Your task to perform on an android device: Clear all items from cart on amazon. Add "razer blackwidow" to the cart on amazon Image 0: 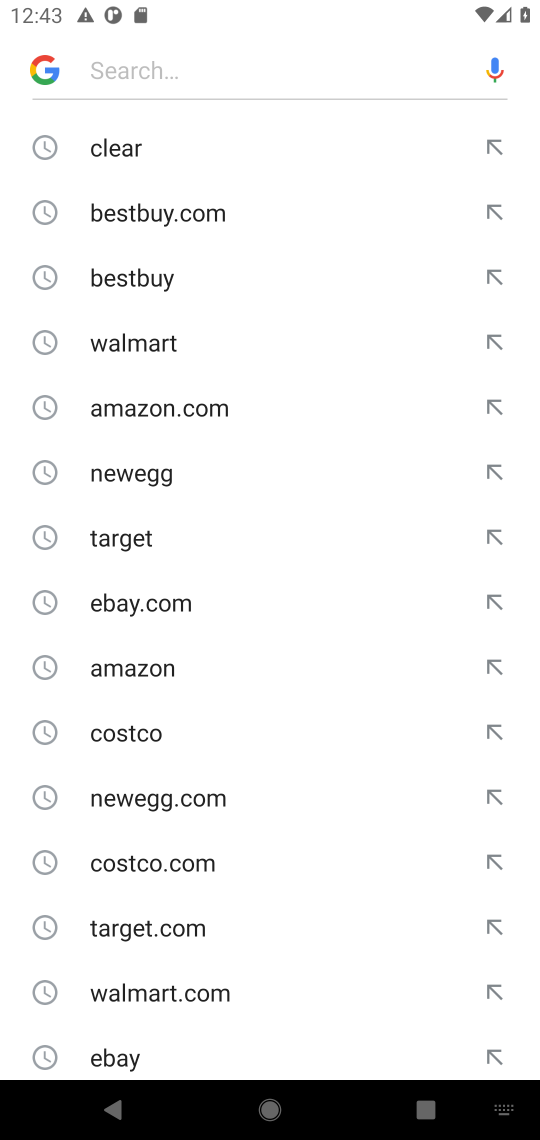
Step 0: press home button
Your task to perform on an android device: Clear all items from cart on amazon. Add "razer blackwidow" to the cart on amazon Image 1: 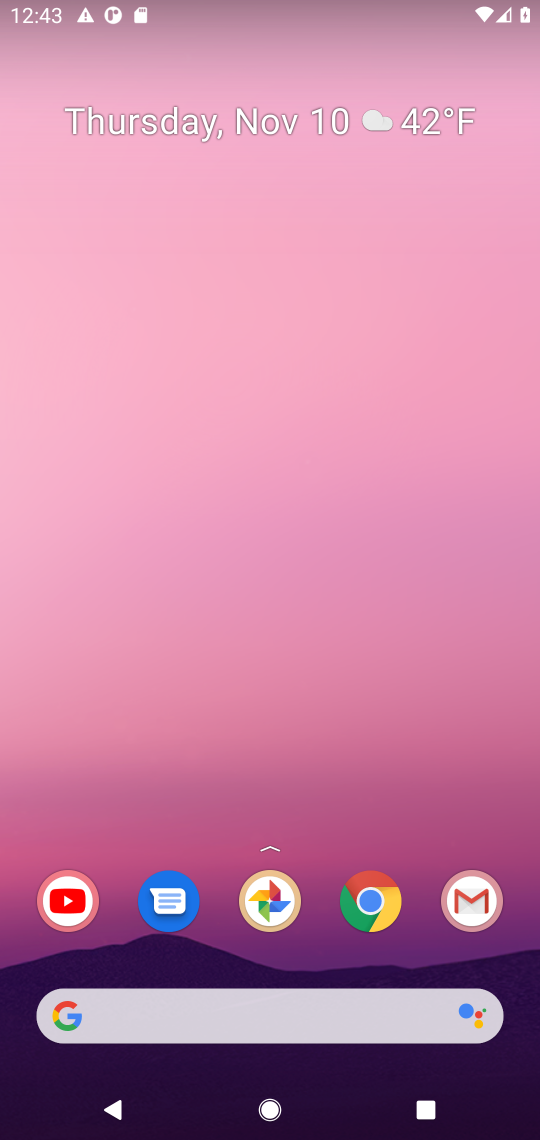
Step 1: drag from (310, 844) to (170, 191)
Your task to perform on an android device: Clear all items from cart on amazon. Add "razer blackwidow" to the cart on amazon Image 2: 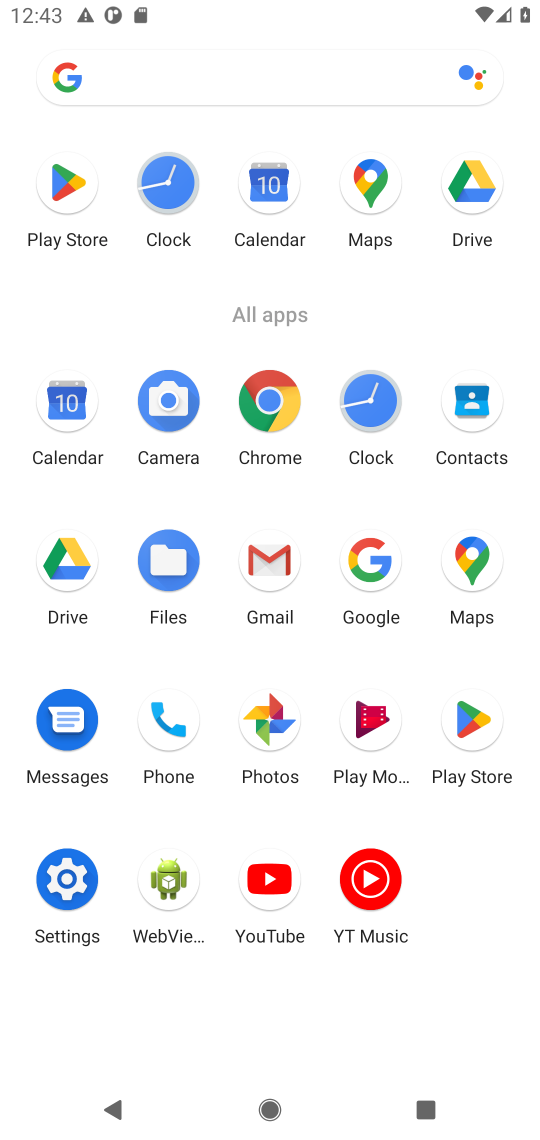
Step 2: click (279, 413)
Your task to perform on an android device: Clear all items from cart on amazon. Add "razer blackwidow" to the cart on amazon Image 3: 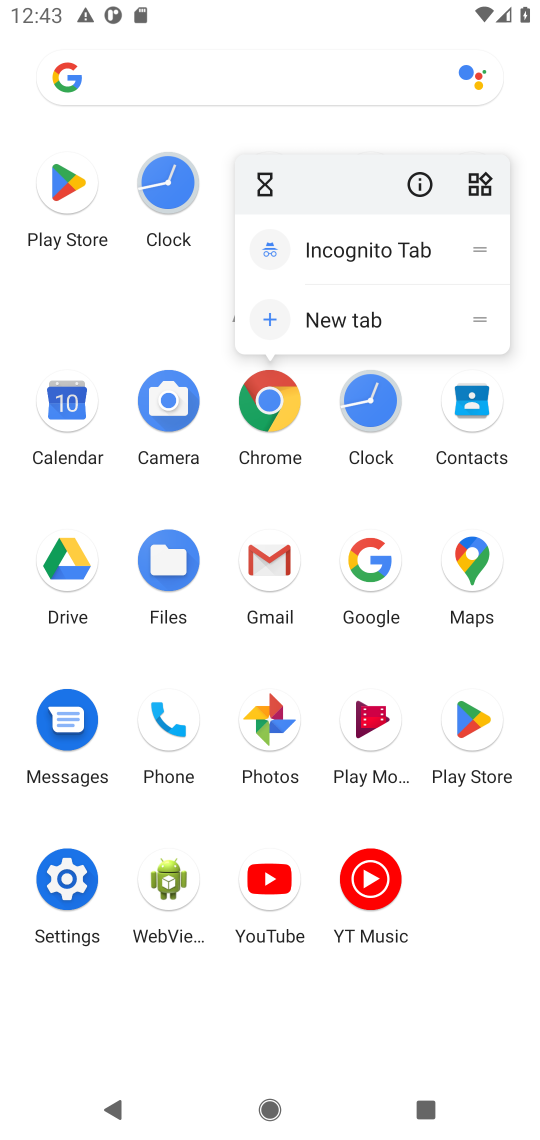
Step 3: click (279, 411)
Your task to perform on an android device: Clear all items from cart on amazon. Add "razer blackwidow" to the cart on amazon Image 4: 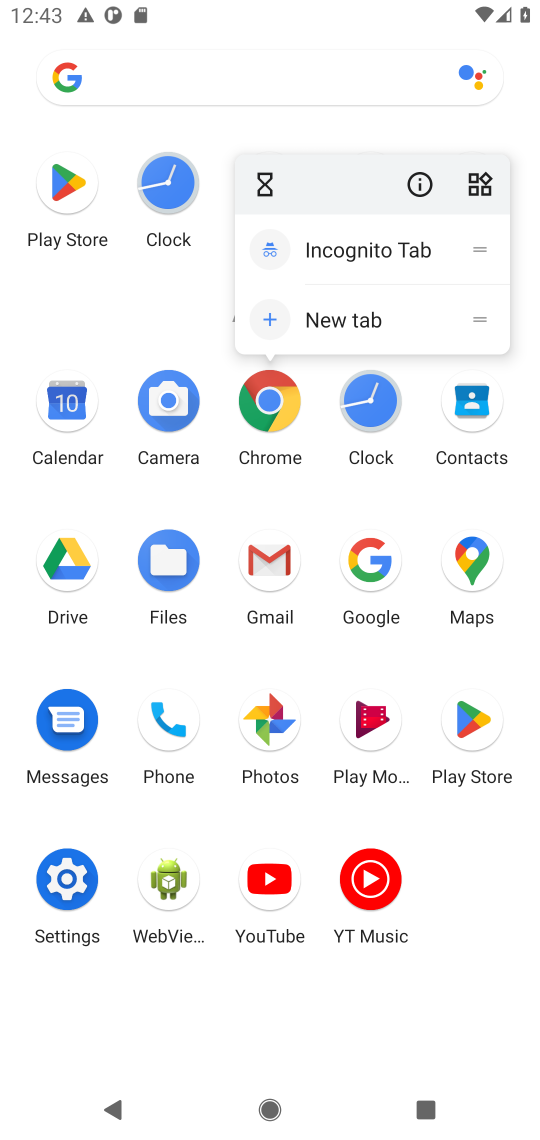
Step 4: click (279, 410)
Your task to perform on an android device: Clear all items from cart on amazon. Add "razer blackwidow" to the cart on amazon Image 5: 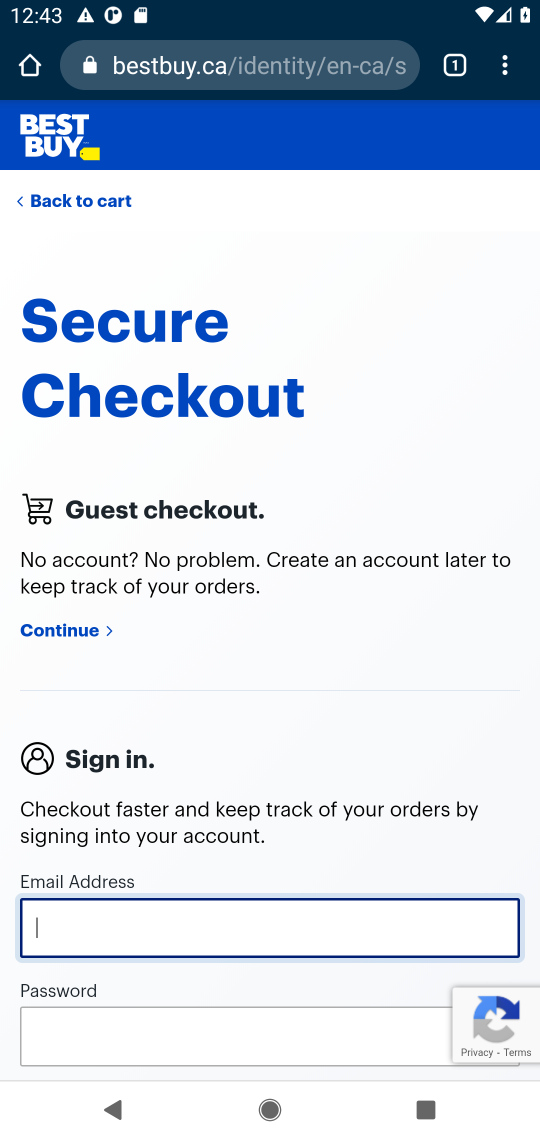
Step 5: click (261, 65)
Your task to perform on an android device: Clear all items from cart on amazon. Add "razer blackwidow" to the cart on amazon Image 6: 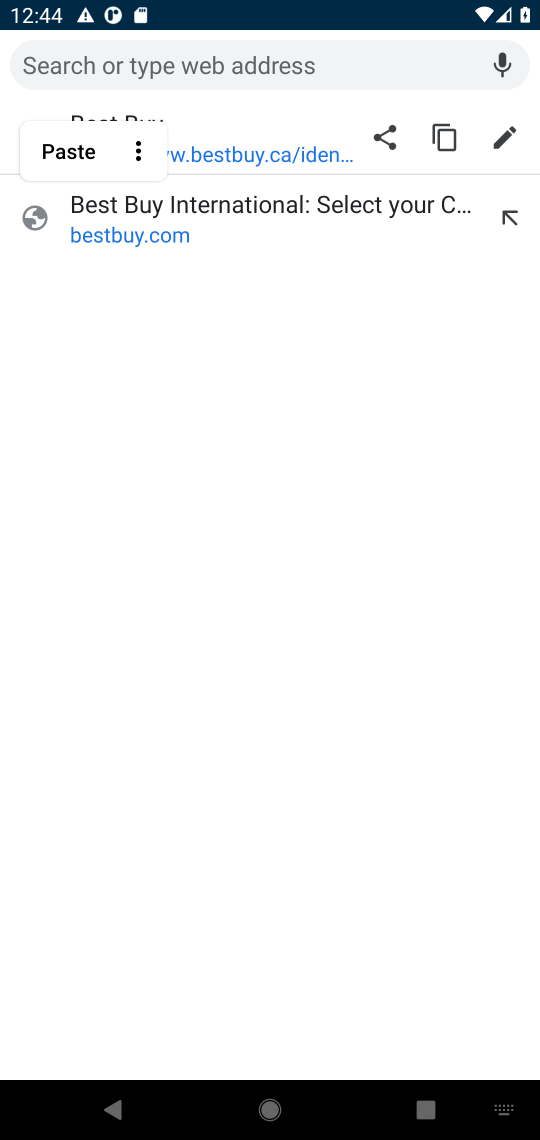
Step 6: click (146, 143)
Your task to perform on an android device: Clear all items from cart on amazon. Add "razer blackwidow" to the cart on amazon Image 7: 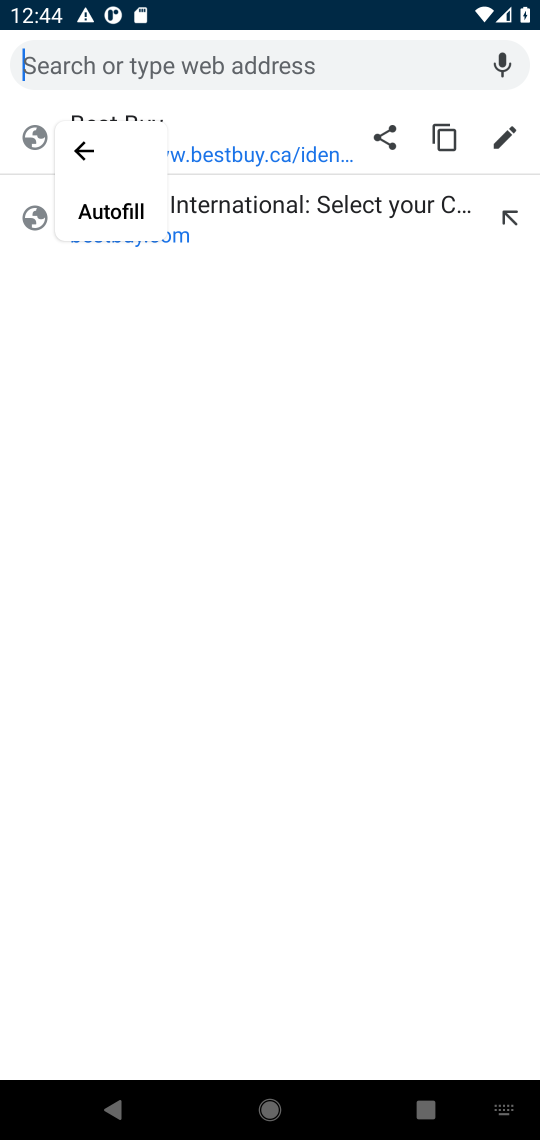
Step 7: click (122, 213)
Your task to perform on an android device: Clear all items from cart on amazon. Add "razer blackwidow" to the cart on amazon Image 8: 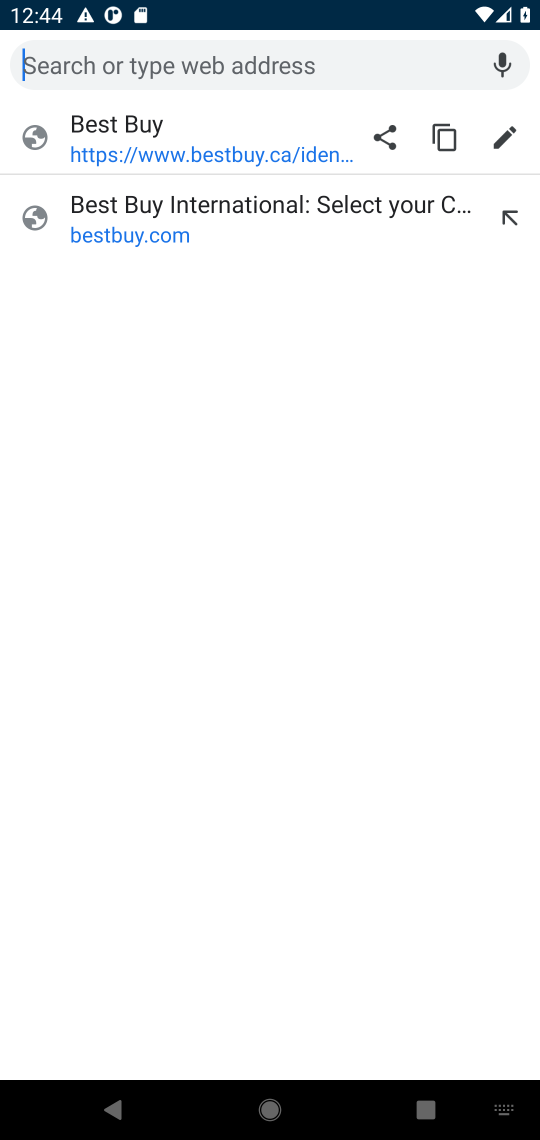
Step 8: type "amazon"
Your task to perform on an android device: Clear all items from cart on amazon. Add "razer blackwidow" to the cart on amazon Image 9: 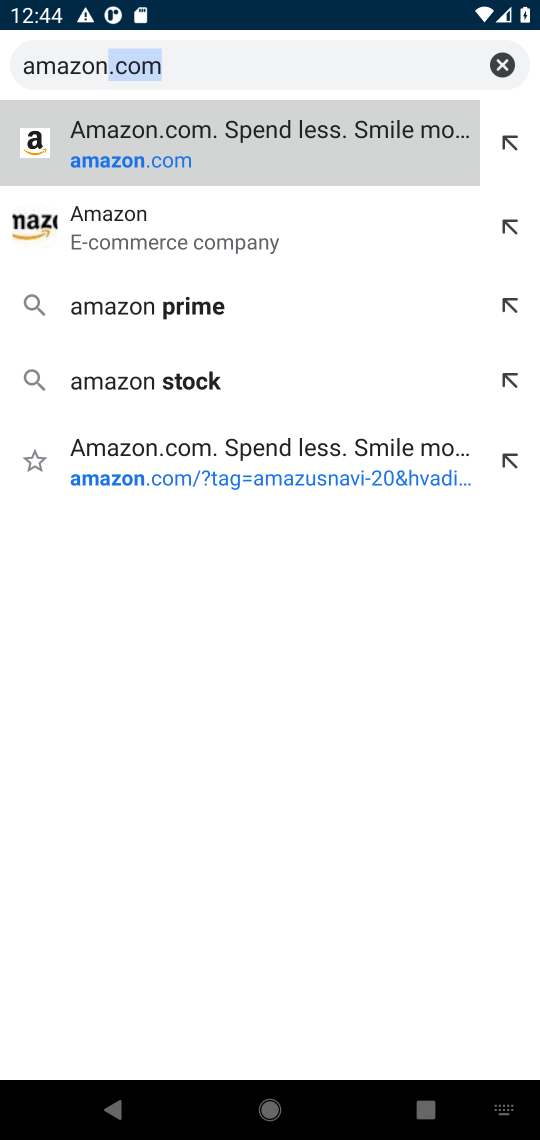
Step 9: press enter
Your task to perform on an android device: Clear all items from cart on amazon. Add "razer blackwidow" to the cart on amazon Image 10: 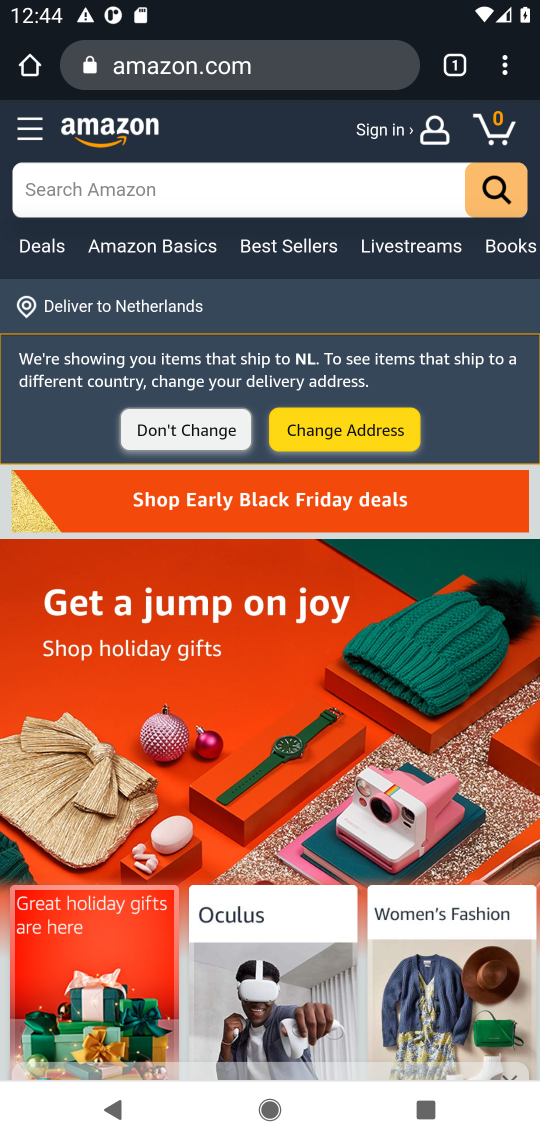
Step 10: click (252, 197)
Your task to perform on an android device: Clear all items from cart on amazon. Add "razer blackwidow" to the cart on amazon Image 11: 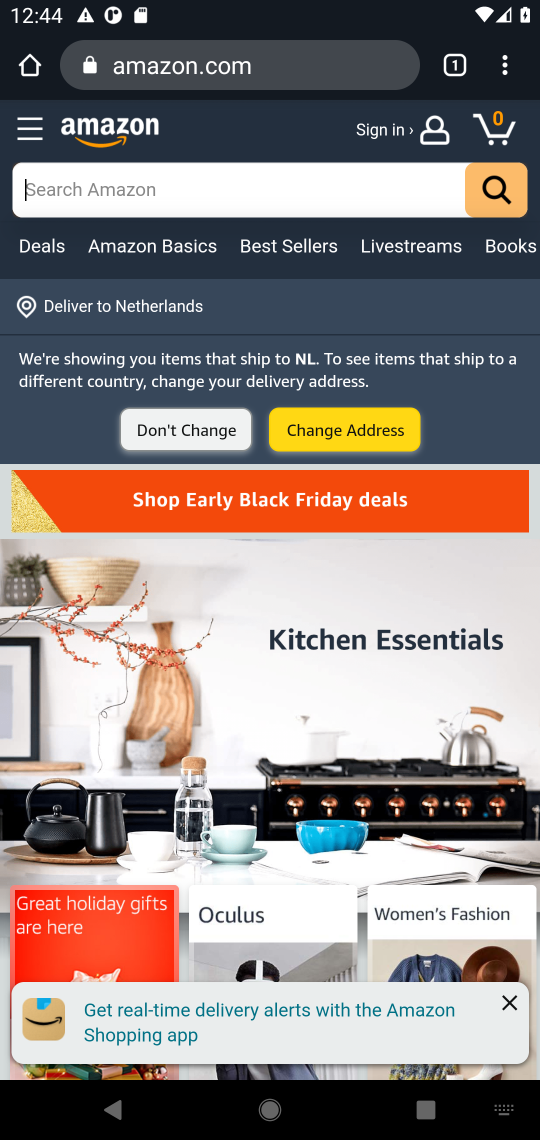
Step 11: type "razer blackwidow"
Your task to perform on an android device: Clear all items from cart on amazon. Add "razer blackwidow" to the cart on amazon Image 12: 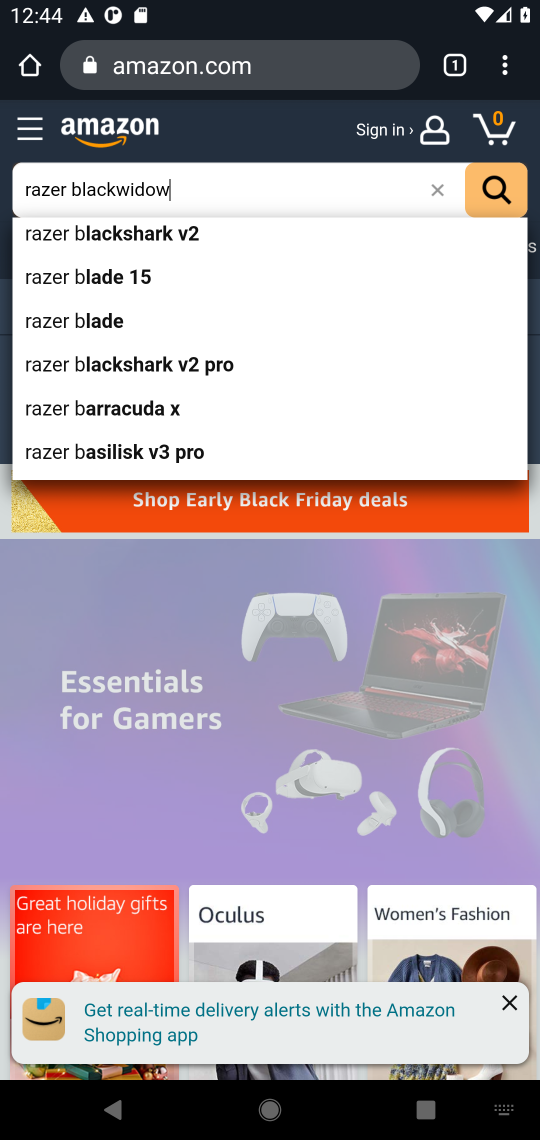
Step 12: press enter
Your task to perform on an android device: Clear all items from cart on amazon. Add "razer blackwidow" to the cart on amazon Image 13: 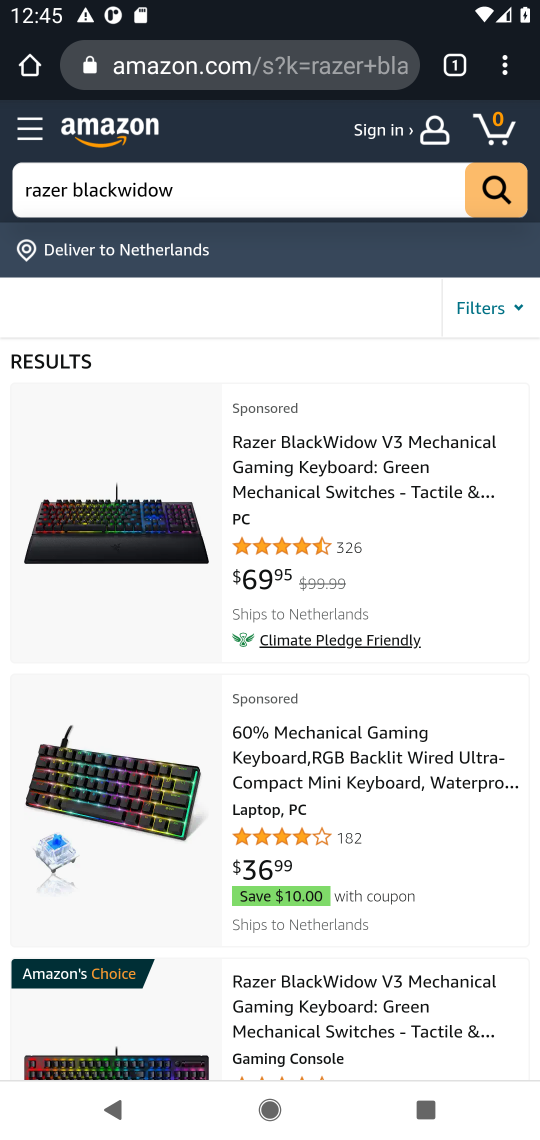
Step 13: click (380, 434)
Your task to perform on an android device: Clear all items from cart on amazon. Add "razer blackwidow" to the cart on amazon Image 14: 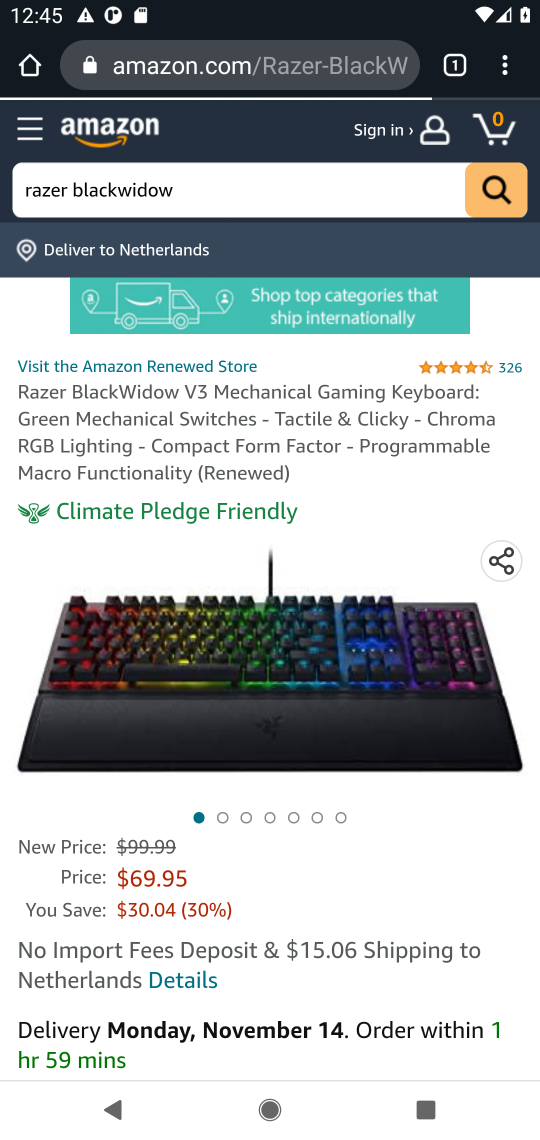
Step 14: drag from (64, 939) to (145, 372)
Your task to perform on an android device: Clear all items from cart on amazon. Add "razer blackwidow" to the cart on amazon Image 15: 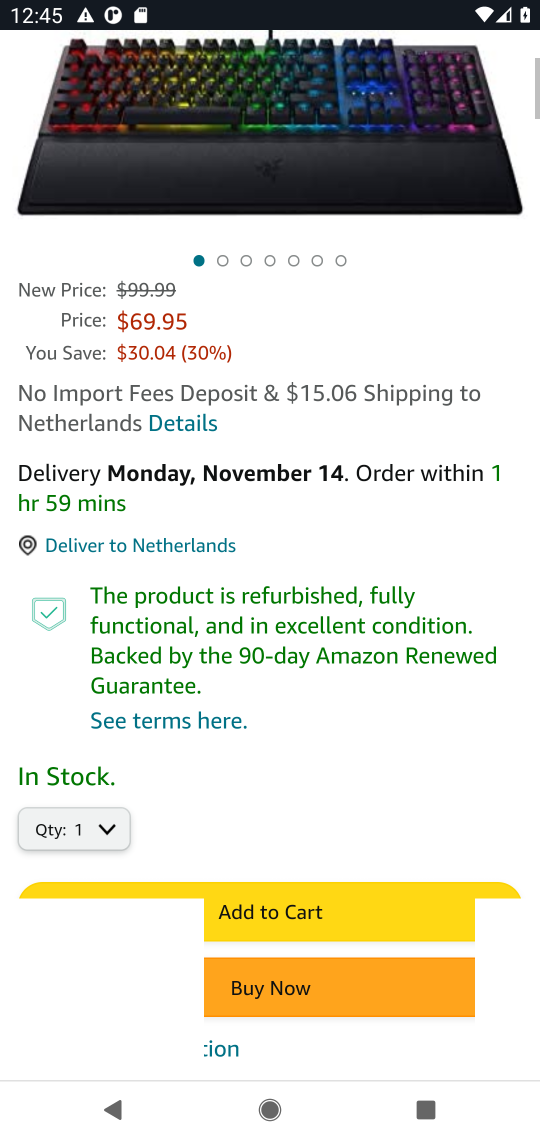
Step 15: drag from (220, 907) to (265, 582)
Your task to perform on an android device: Clear all items from cart on amazon. Add "razer blackwidow" to the cart on amazon Image 16: 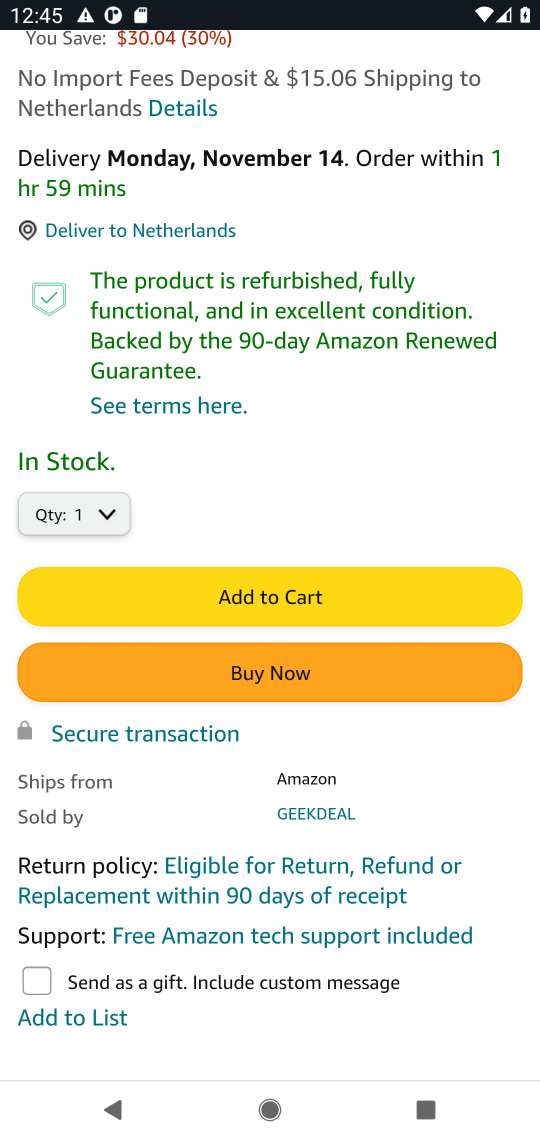
Step 16: click (270, 599)
Your task to perform on an android device: Clear all items from cart on amazon. Add "razer blackwidow" to the cart on amazon Image 17: 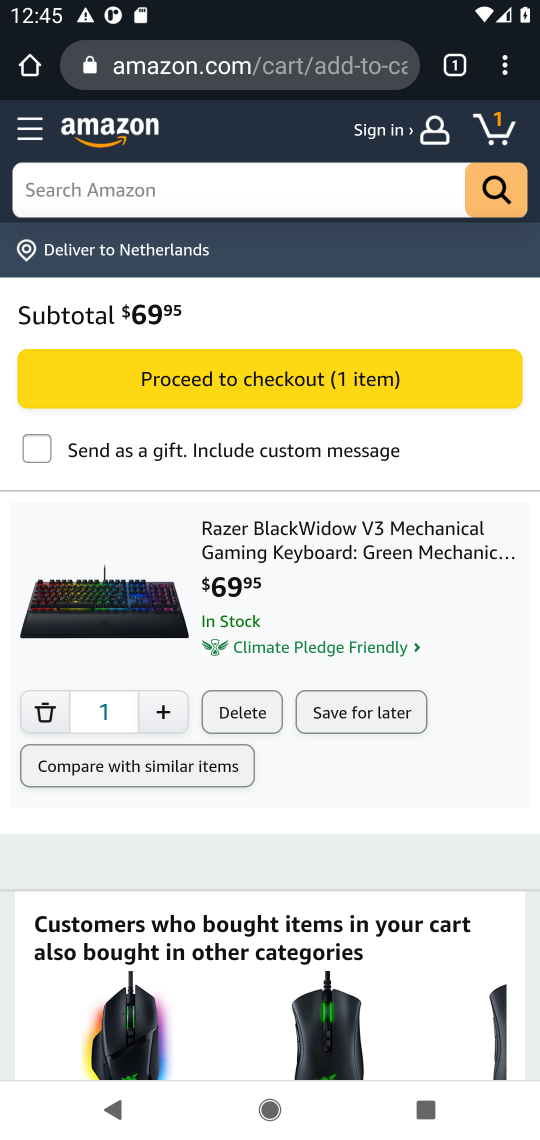
Step 17: task complete